Your task to perform on an android device: toggle notifications settings in the gmail app Image 0: 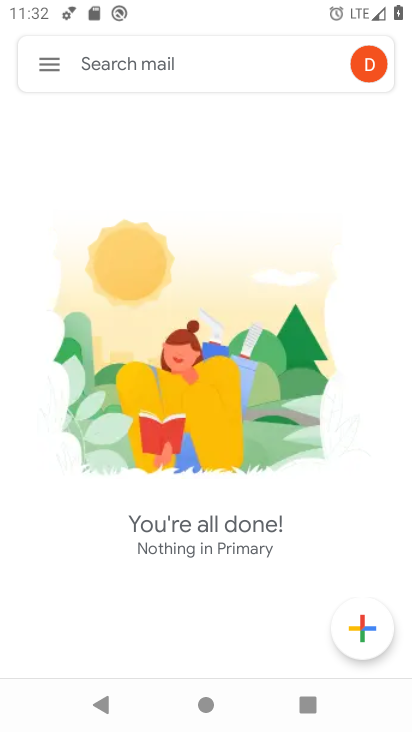
Step 0: press home button
Your task to perform on an android device: toggle notifications settings in the gmail app Image 1: 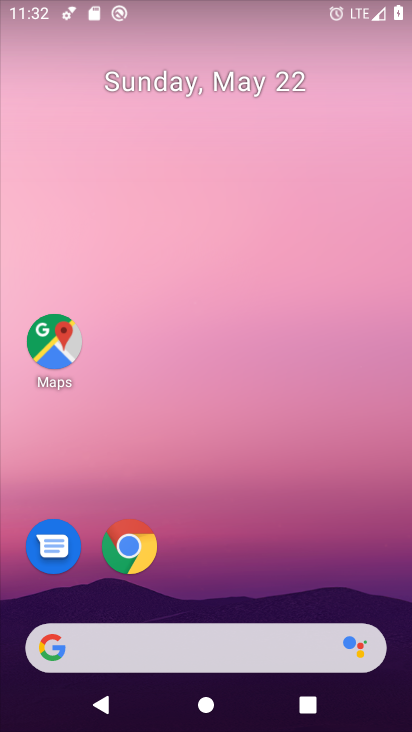
Step 1: drag from (309, 507) to (264, 70)
Your task to perform on an android device: toggle notifications settings in the gmail app Image 2: 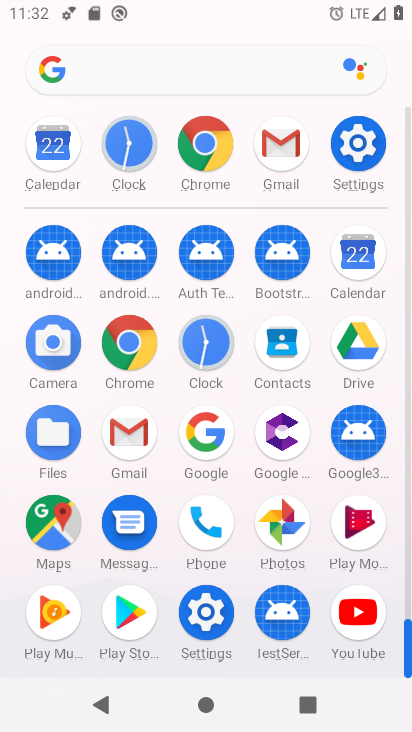
Step 2: click (135, 456)
Your task to perform on an android device: toggle notifications settings in the gmail app Image 3: 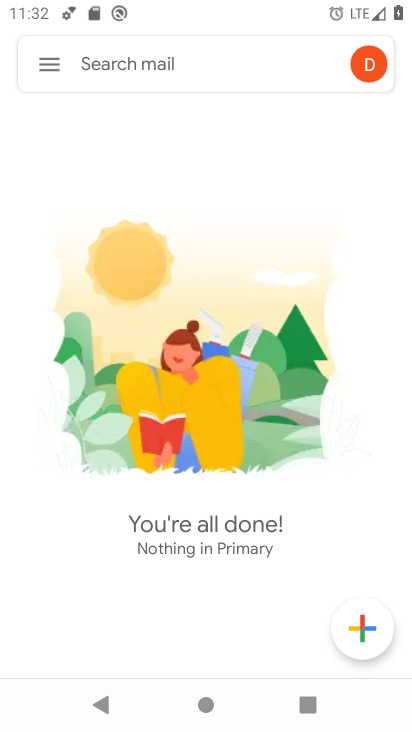
Step 3: click (49, 58)
Your task to perform on an android device: toggle notifications settings in the gmail app Image 4: 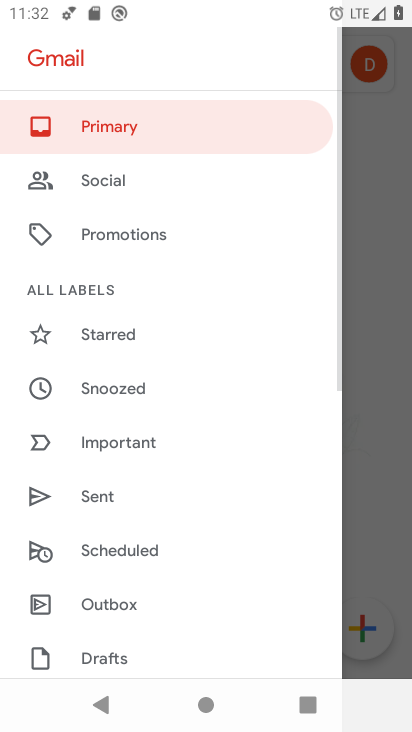
Step 4: drag from (162, 604) to (168, 366)
Your task to perform on an android device: toggle notifications settings in the gmail app Image 5: 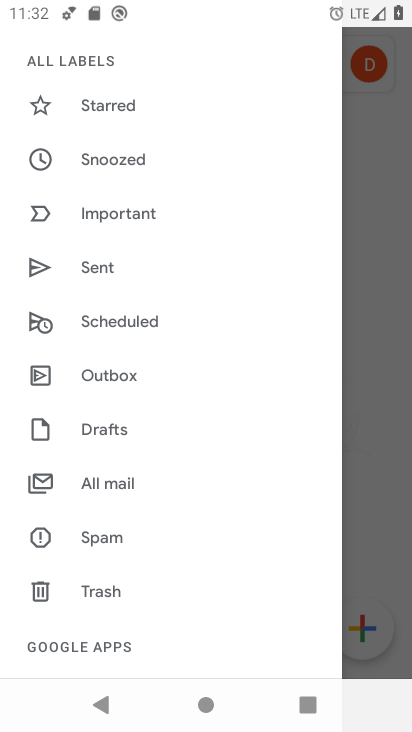
Step 5: drag from (132, 599) to (150, 260)
Your task to perform on an android device: toggle notifications settings in the gmail app Image 6: 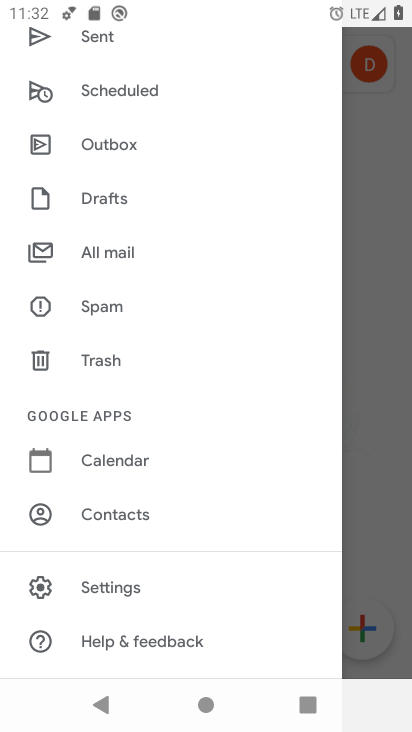
Step 6: click (131, 589)
Your task to perform on an android device: toggle notifications settings in the gmail app Image 7: 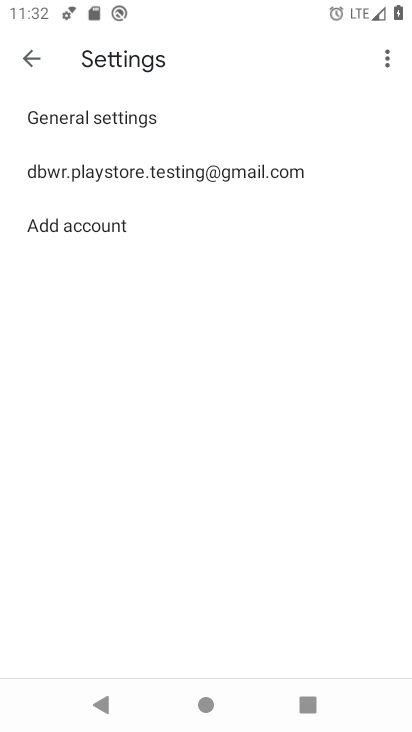
Step 7: click (157, 113)
Your task to perform on an android device: toggle notifications settings in the gmail app Image 8: 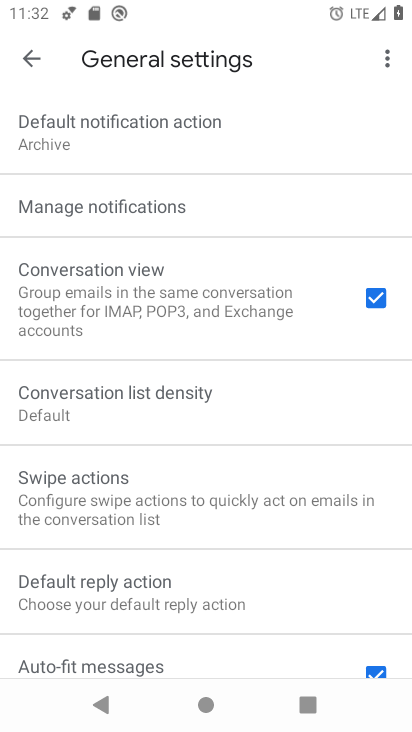
Step 8: click (138, 211)
Your task to perform on an android device: toggle notifications settings in the gmail app Image 9: 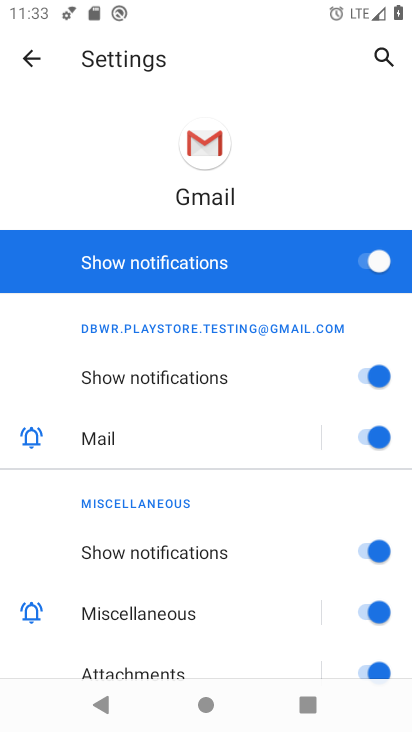
Step 9: click (280, 275)
Your task to perform on an android device: toggle notifications settings in the gmail app Image 10: 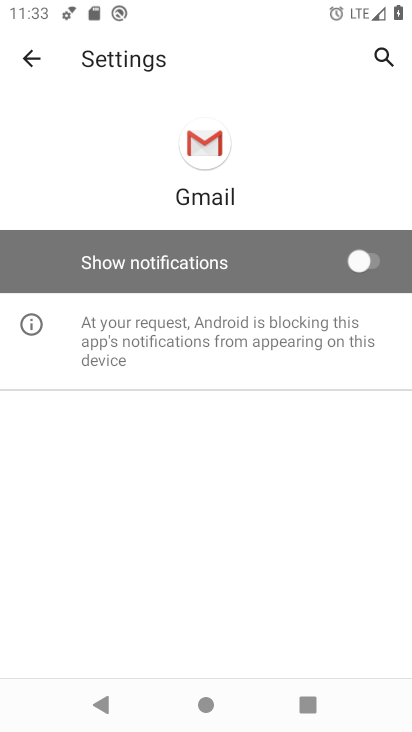
Step 10: task complete